Your task to perform on an android device: Find coffee shops on Maps Image 0: 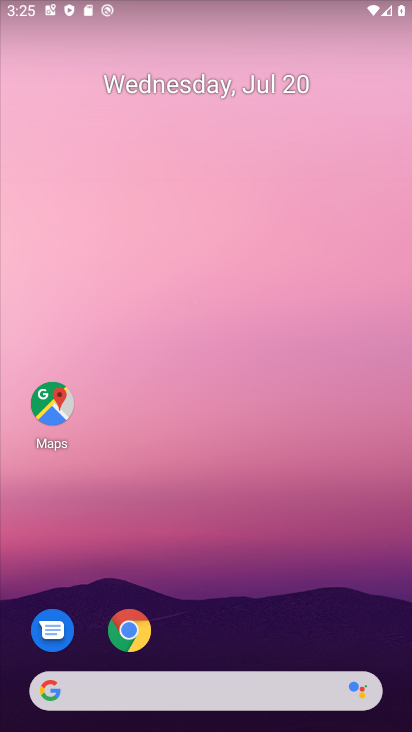
Step 0: click (52, 397)
Your task to perform on an android device: Find coffee shops on Maps Image 1: 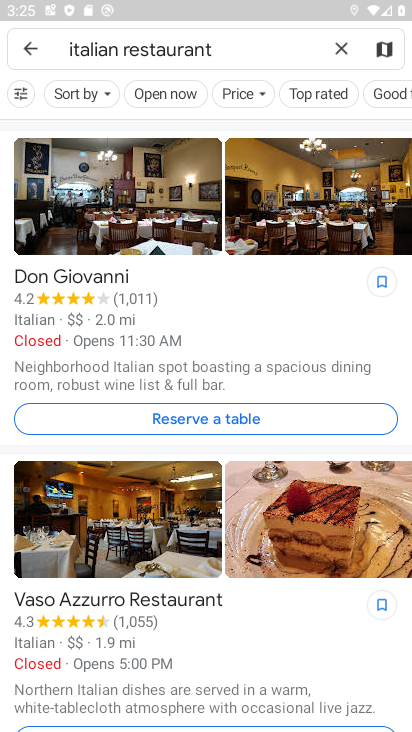
Step 1: click (344, 45)
Your task to perform on an android device: Find coffee shops on Maps Image 2: 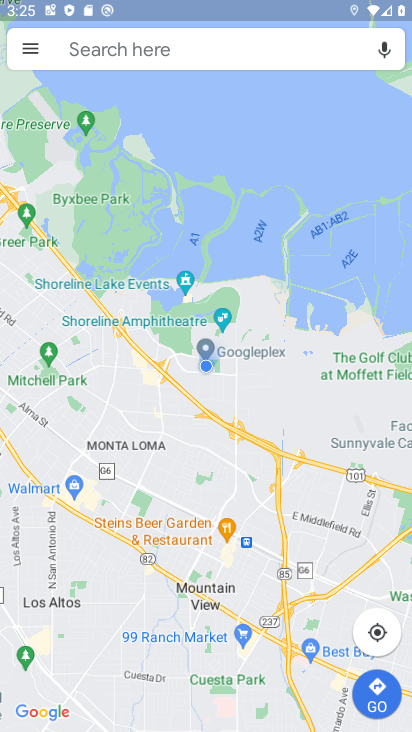
Step 2: click (115, 40)
Your task to perform on an android device: Find coffee shops on Maps Image 3: 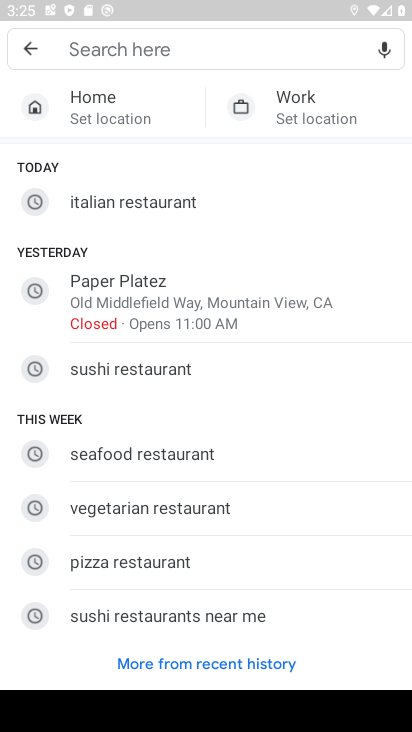
Step 3: type "coffee"
Your task to perform on an android device: Find coffee shops on Maps Image 4: 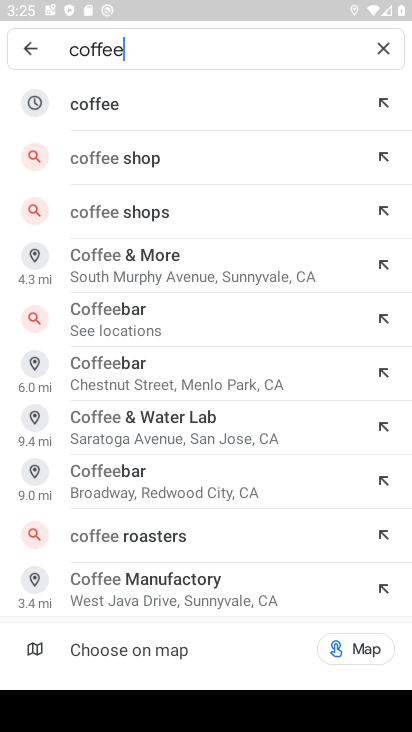
Step 4: click (145, 152)
Your task to perform on an android device: Find coffee shops on Maps Image 5: 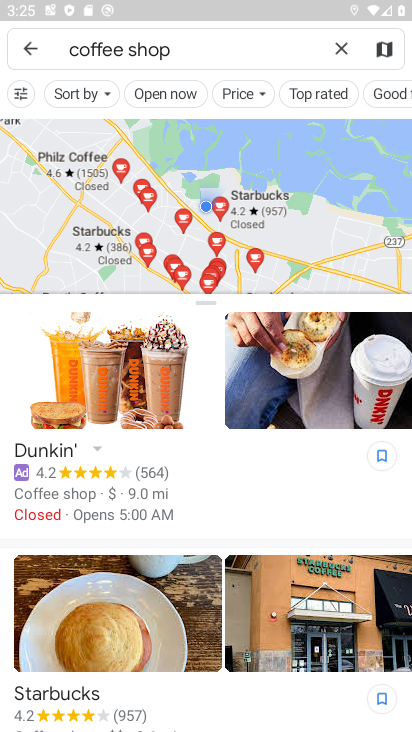
Step 5: task complete